Your task to perform on an android device: Where can I buy a nice beach tent? Image 0: 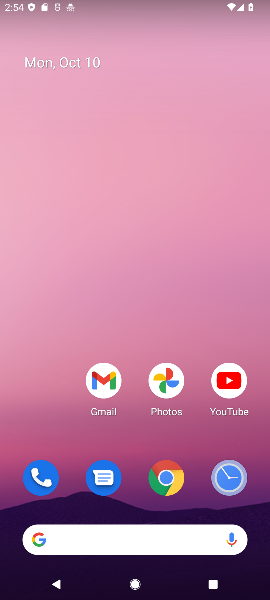
Step 0: click (170, 476)
Your task to perform on an android device: Where can I buy a nice beach tent? Image 1: 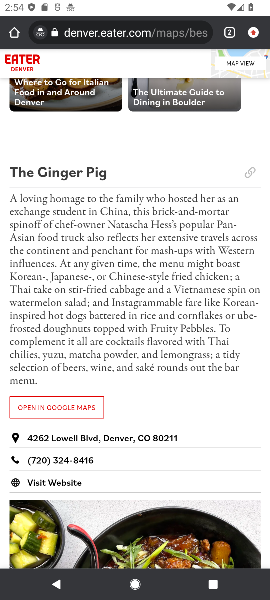
Step 1: click (156, 40)
Your task to perform on an android device: Where can I buy a nice beach tent? Image 2: 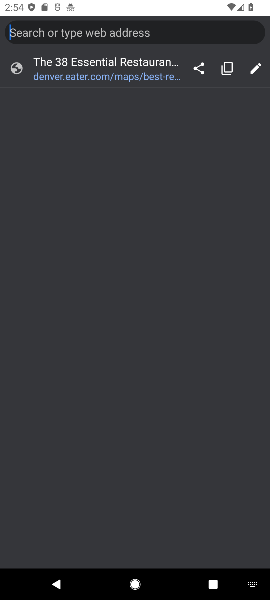
Step 2: click (58, 593)
Your task to perform on an android device: Where can I buy a nice beach tent? Image 3: 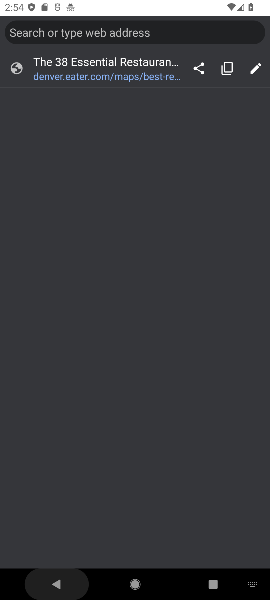
Step 3: type "Where can I buy a nice beach tent?"
Your task to perform on an android device: Where can I buy a nice beach tent? Image 4: 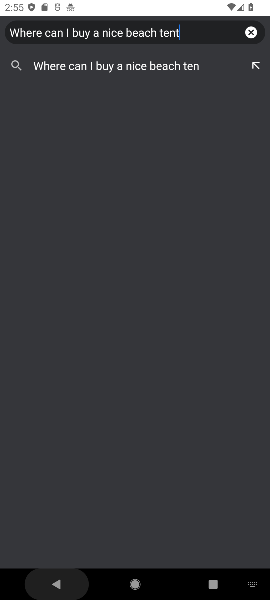
Step 4: drag from (58, 593) to (266, 189)
Your task to perform on an android device: Where can I buy a nice beach tent? Image 5: 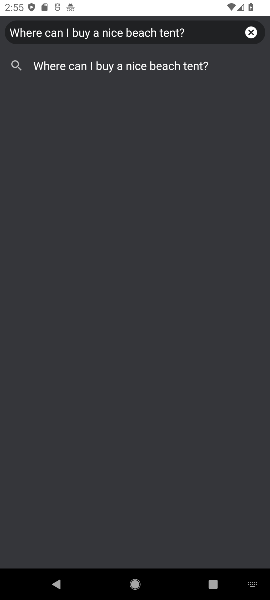
Step 5: click (128, 71)
Your task to perform on an android device: Where can I buy a nice beach tent? Image 6: 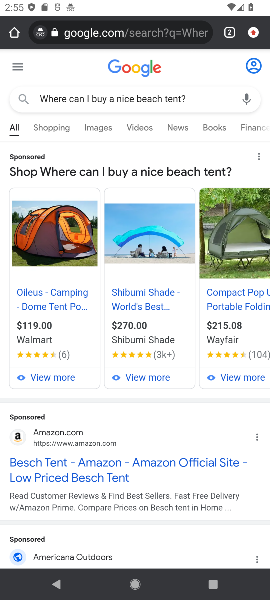
Step 6: task complete